Your task to perform on an android device: turn off wifi Image 0: 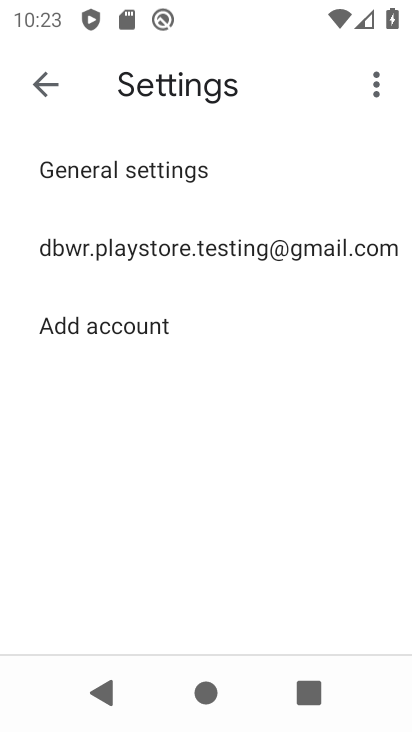
Step 0: press home button
Your task to perform on an android device: turn off wifi Image 1: 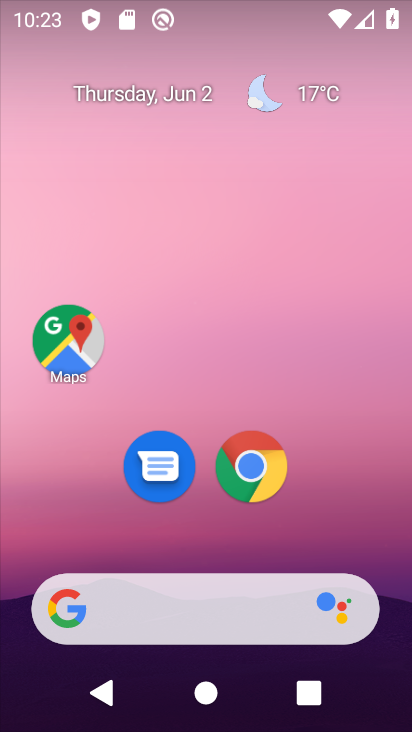
Step 1: drag from (215, 43) to (200, 722)
Your task to perform on an android device: turn off wifi Image 2: 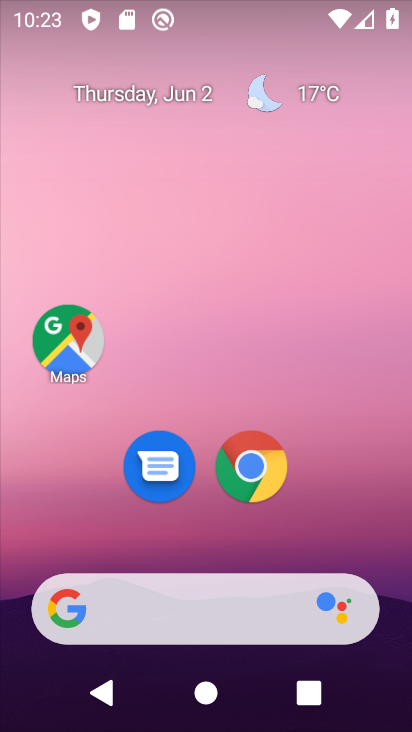
Step 2: drag from (225, 16) to (251, 658)
Your task to perform on an android device: turn off wifi Image 3: 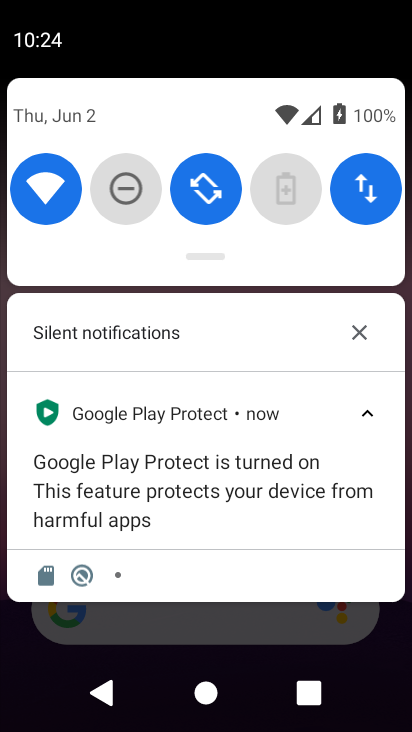
Step 3: click (49, 193)
Your task to perform on an android device: turn off wifi Image 4: 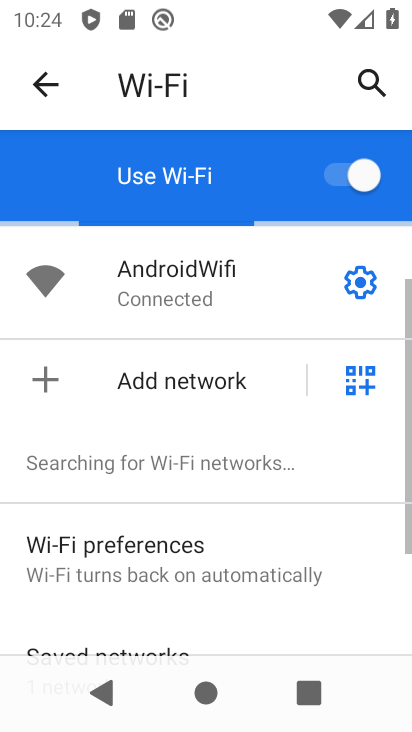
Step 4: task complete